Your task to perform on an android device: Search for sushi restaurants on Maps Image 0: 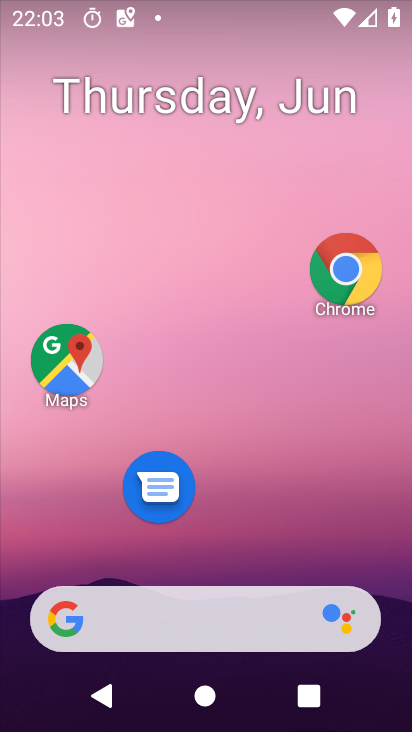
Step 0: click (151, 125)
Your task to perform on an android device: Search for sushi restaurants on Maps Image 1: 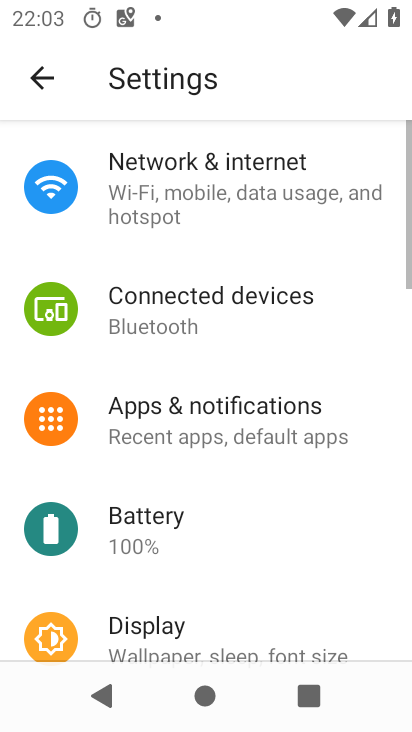
Step 1: press home button
Your task to perform on an android device: Search for sushi restaurants on Maps Image 2: 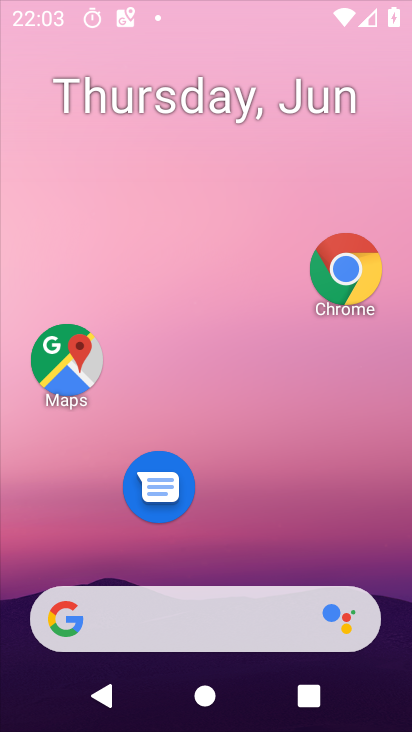
Step 2: drag from (254, 448) to (257, 136)
Your task to perform on an android device: Search for sushi restaurants on Maps Image 3: 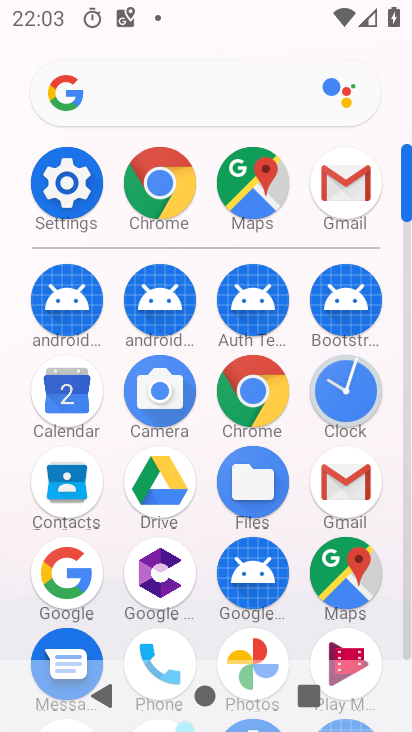
Step 3: click (349, 600)
Your task to perform on an android device: Search for sushi restaurants on Maps Image 4: 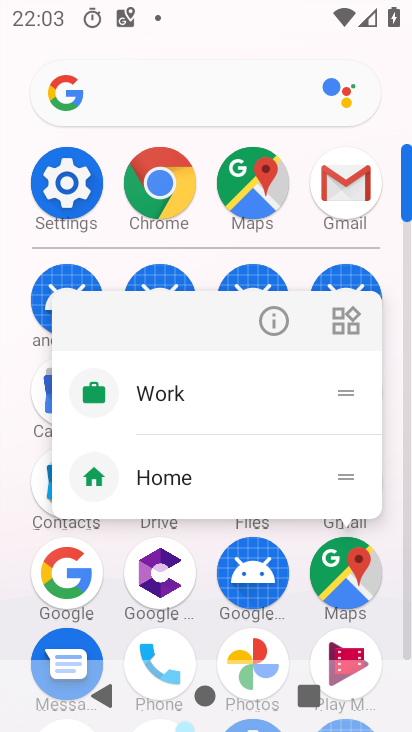
Step 4: click (274, 320)
Your task to perform on an android device: Search for sushi restaurants on Maps Image 5: 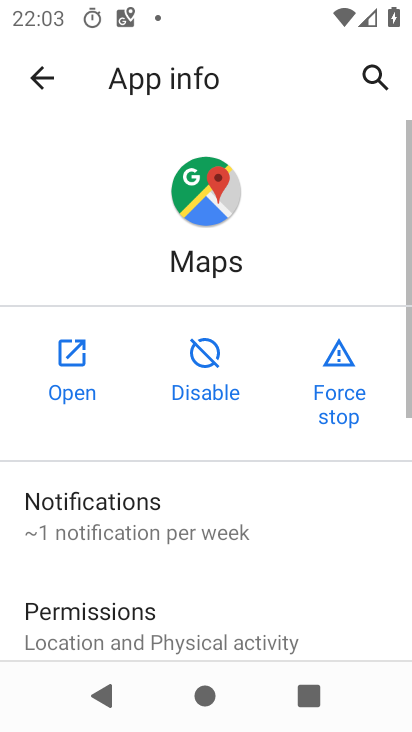
Step 5: click (67, 362)
Your task to perform on an android device: Search for sushi restaurants on Maps Image 6: 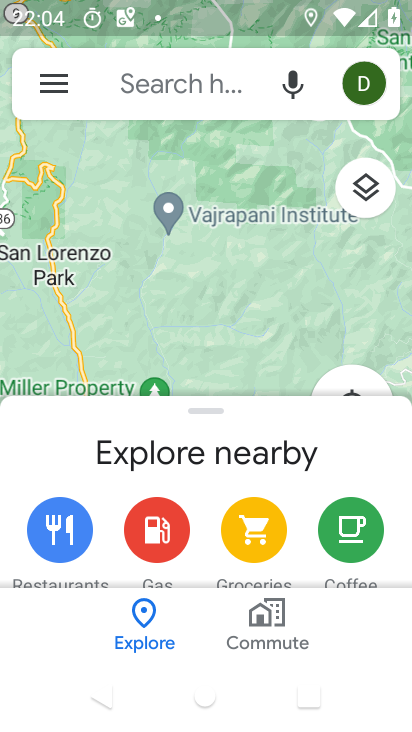
Step 6: drag from (222, 453) to (129, 0)
Your task to perform on an android device: Search for sushi restaurants on Maps Image 7: 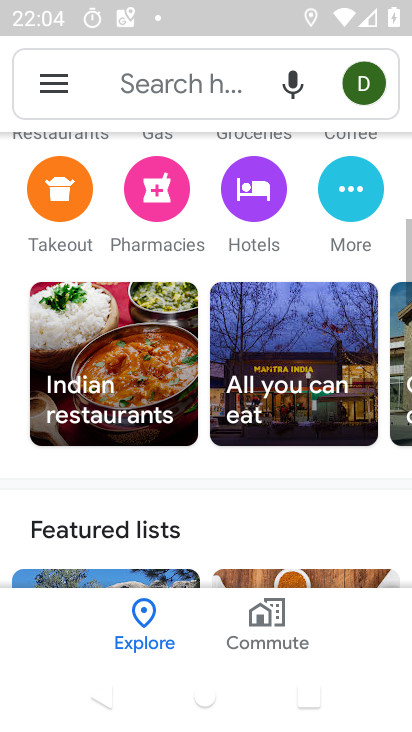
Step 7: drag from (215, 565) to (246, 85)
Your task to perform on an android device: Search for sushi restaurants on Maps Image 8: 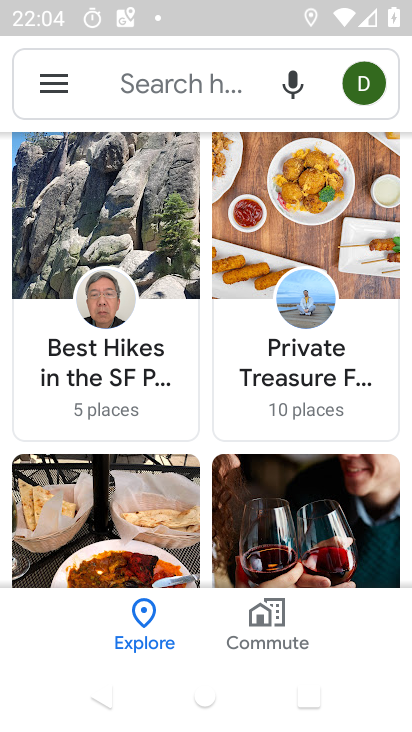
Step 8: drag from (199, 138) to (213, 723)
Your task to perform on an android device: Search for sushi restaurants on Maps Image 9: 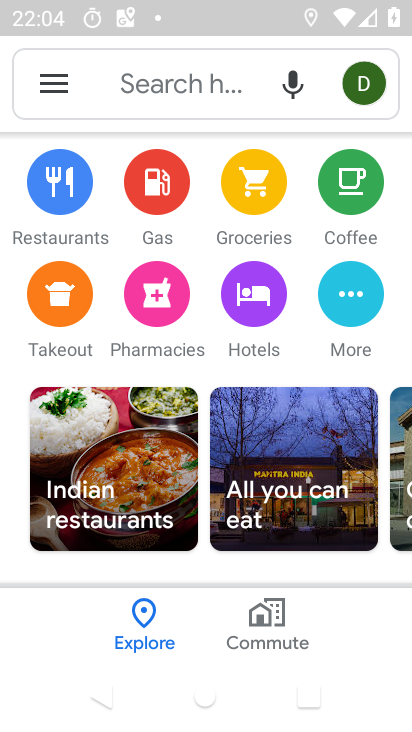
Step 9: click (135, 122)
Your task to perform on an android device: Search for sushi restaurants on Maps Image 10: 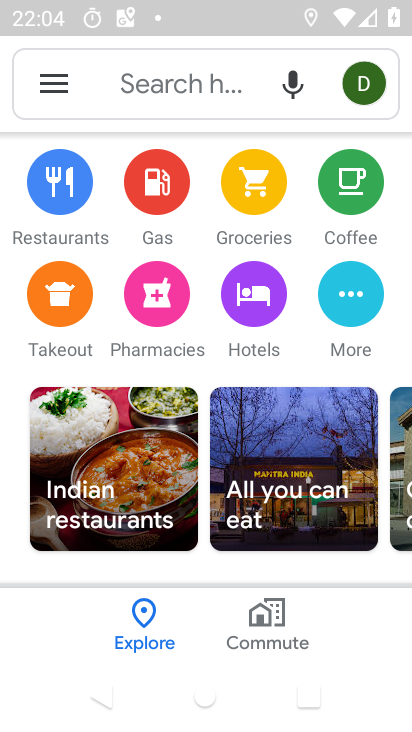
Step 10: click (162, 91)
Your task to perform on an android device: Search for sushi restaurants on Maps Image 11: 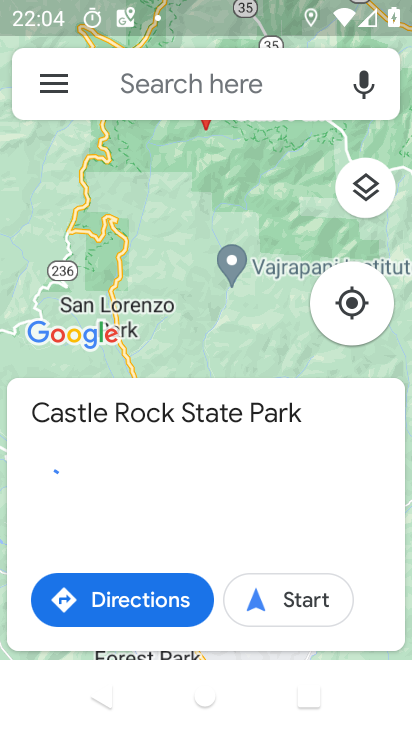
Step 11: click (92, 87)
Your task to perform on an android device: Search for sushi restaurants on Maps Image 12: 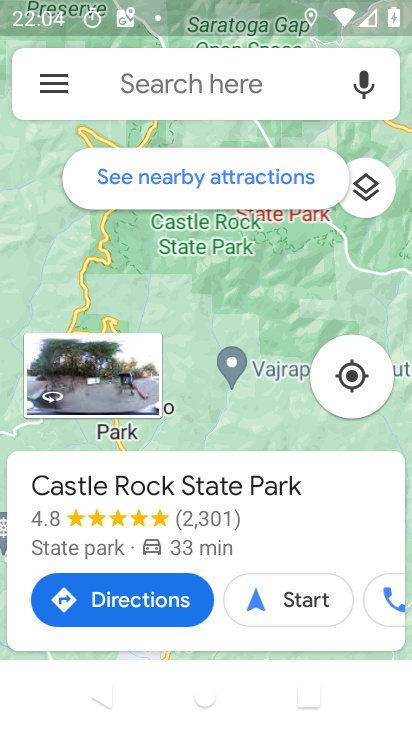
Step 12: click (128, 87)
Your task to perform on an android device: Search for sushi restaurants on Maps Image 13: 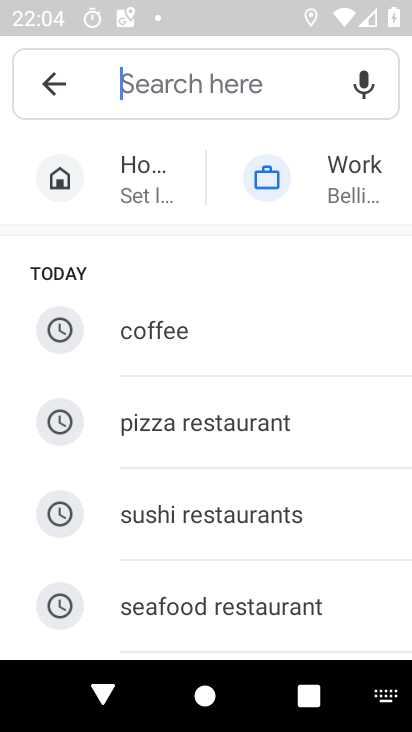
Step 13: click (177, 523)
Your task to perform on an android device: Search for sushi restaurants on Maps Image 14: 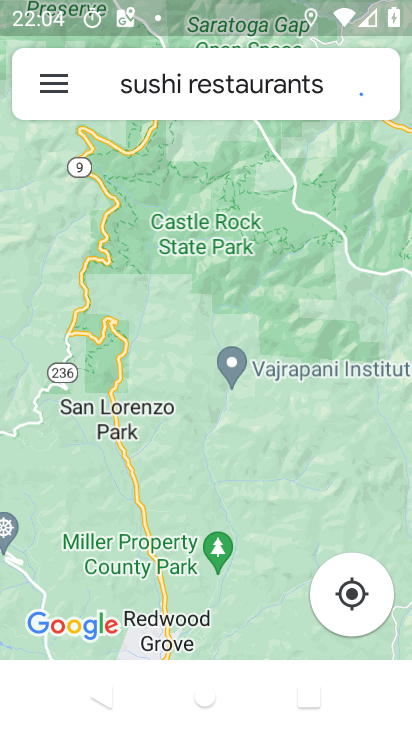
Step 14: task complete